Your task to perform on an android device: turn off location Image 0: 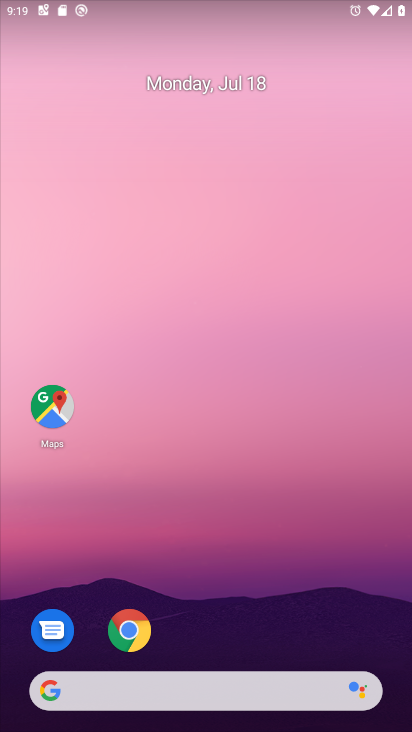
Step 0: drag from (250, 641) to (257, 191)
Your task to perform on an android device: turn off location Image 1: 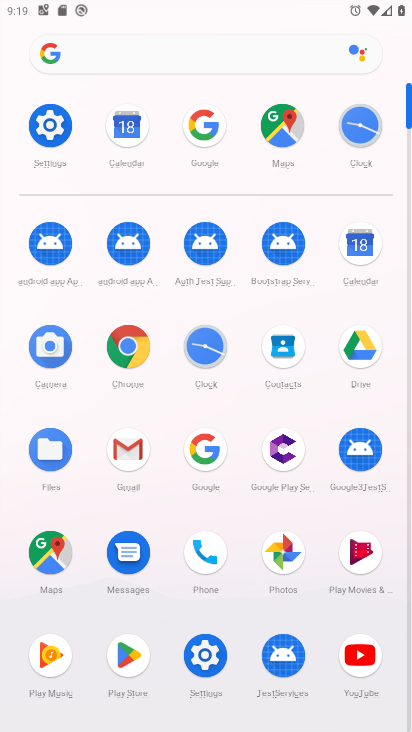
Step 1: click (44, 143)
Your task to perform on an android device: turn off location Image 2: 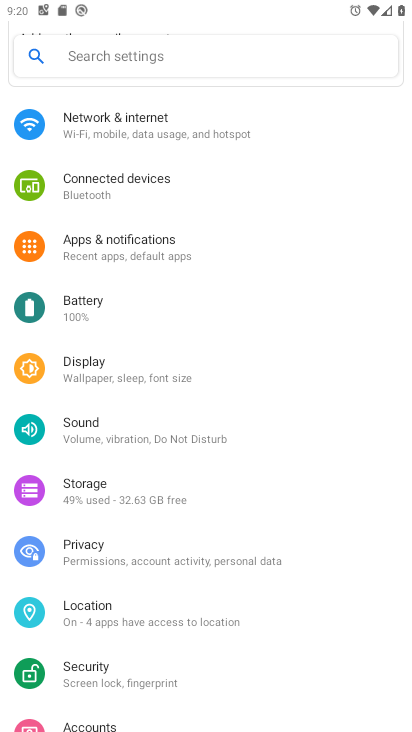
Step 2: click (151, 611)
Your task to perform on an android device: turn off location Image 3: 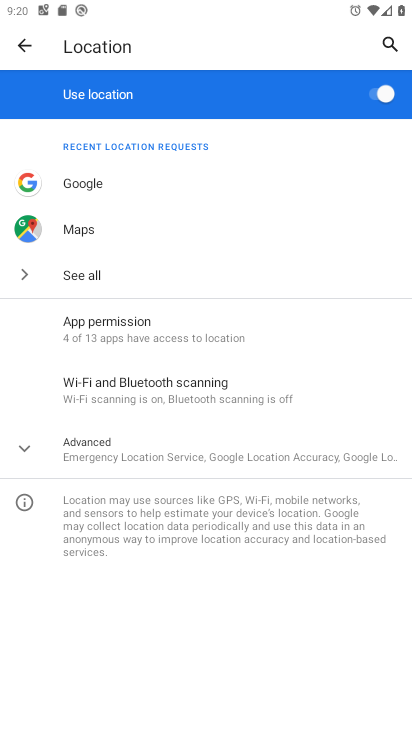
Step 3: click (371, 98)
Your task to perform on an android device: turn off location Image 4: 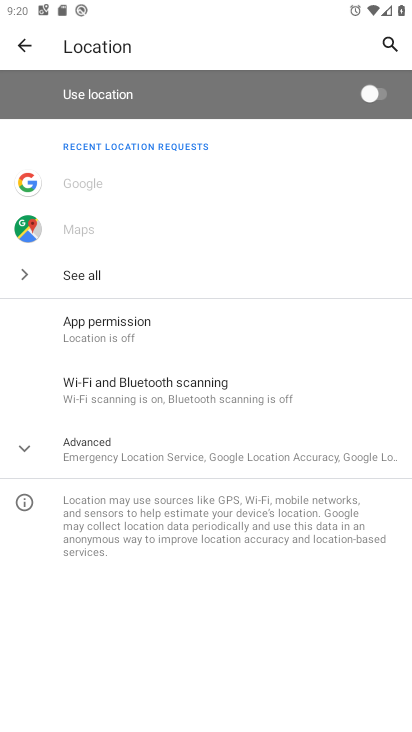
Step 4: task complete